Your task to perform on an android device: Go to internet settings Image 0: 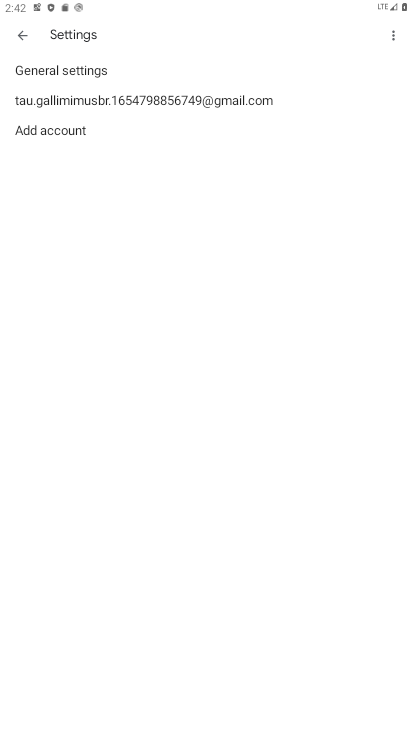
Step 0: press home button
Your task to perform on an android device: Go to internet settings Image 1: 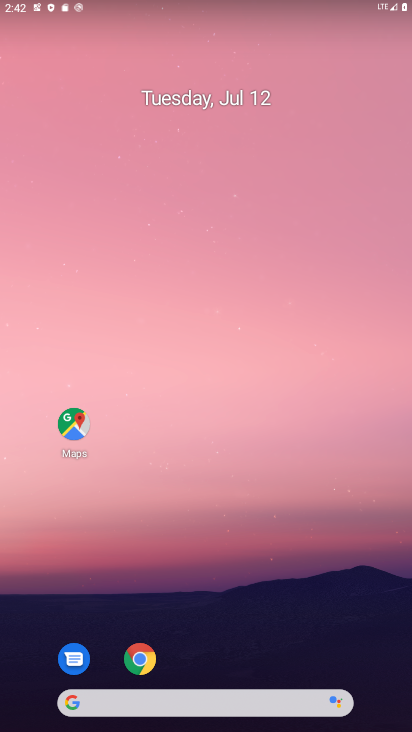
Step 1: drag from (208, 728) to (208, 206)
Your task to perform on an android device: Go to internet settings Image 2: 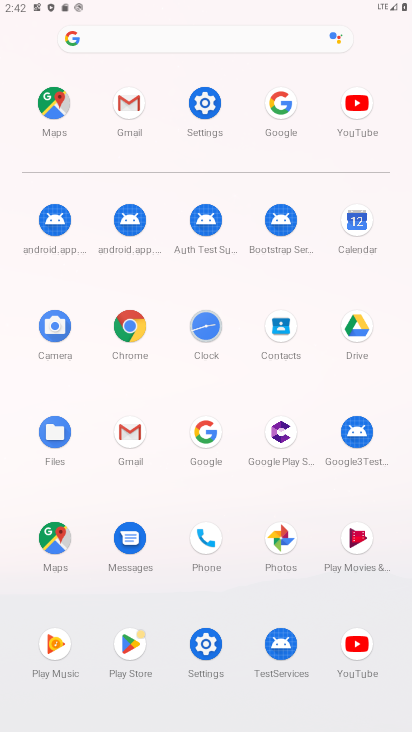
Step 2: click (201, 105)
Your task to perform on an android device: Go to internet settings Image 3: 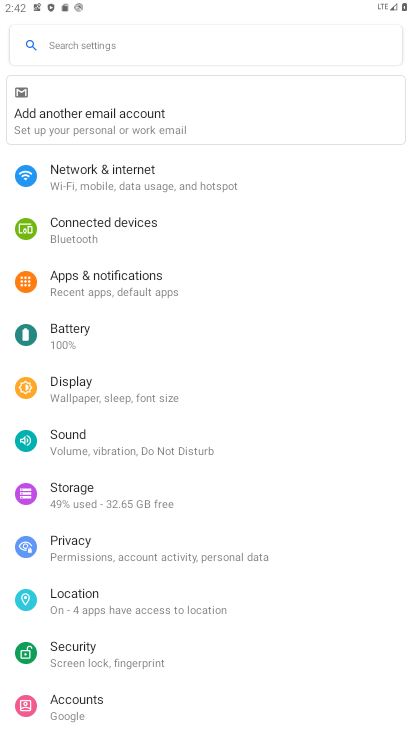
Step 3: click (96, 174)
Your task to perform on an android device: Go to internet settings Image 4: 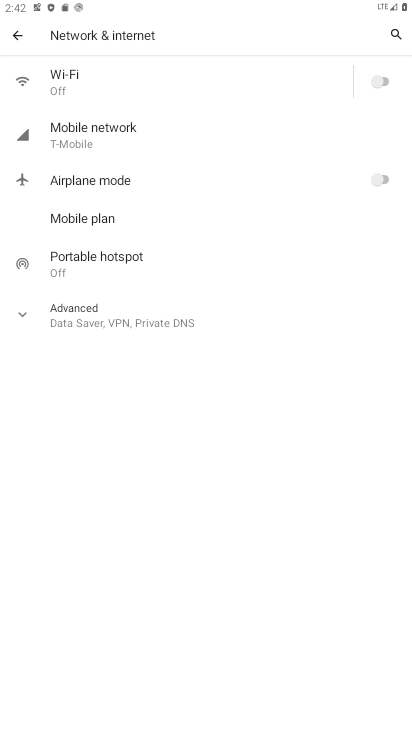
Step 4: task complete